Your task to perform on an android device: Open CNN.com Image 0: 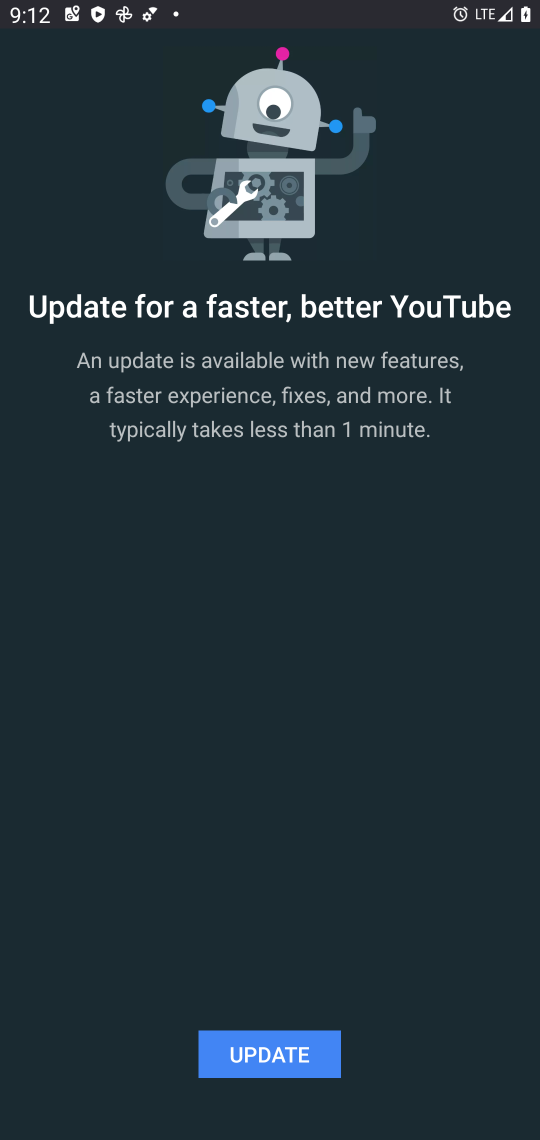
Step 0: press home button
Your task to perform on an android device: Open CNN.com Image 1: 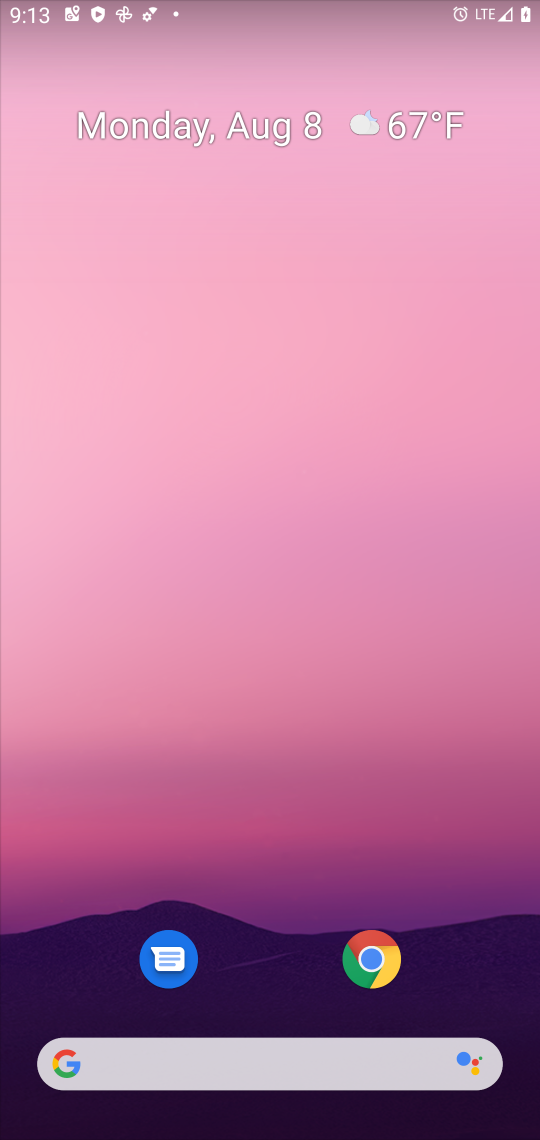
Step 1: drag from (469, 977) to (236, 1)
Your task to perform on an android device: Open CNN.com Image 2: 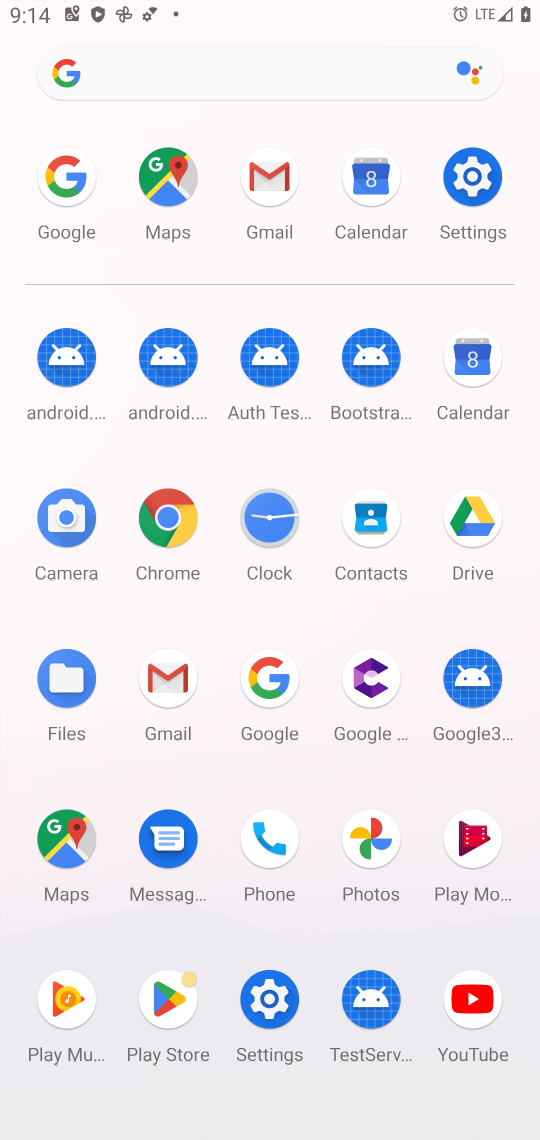
Step 2: click (257, 696)
Your task to perform on an android device: Open CNN.com Image 3: 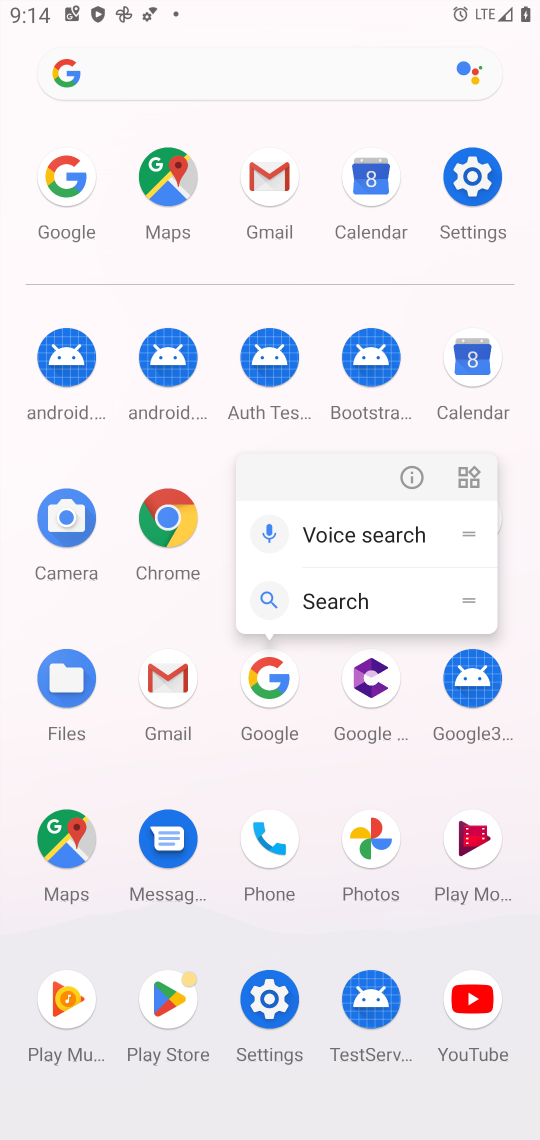
Step 3: click (257, 696)
Your task to perform on an android device: Open CNN.com Image 4: 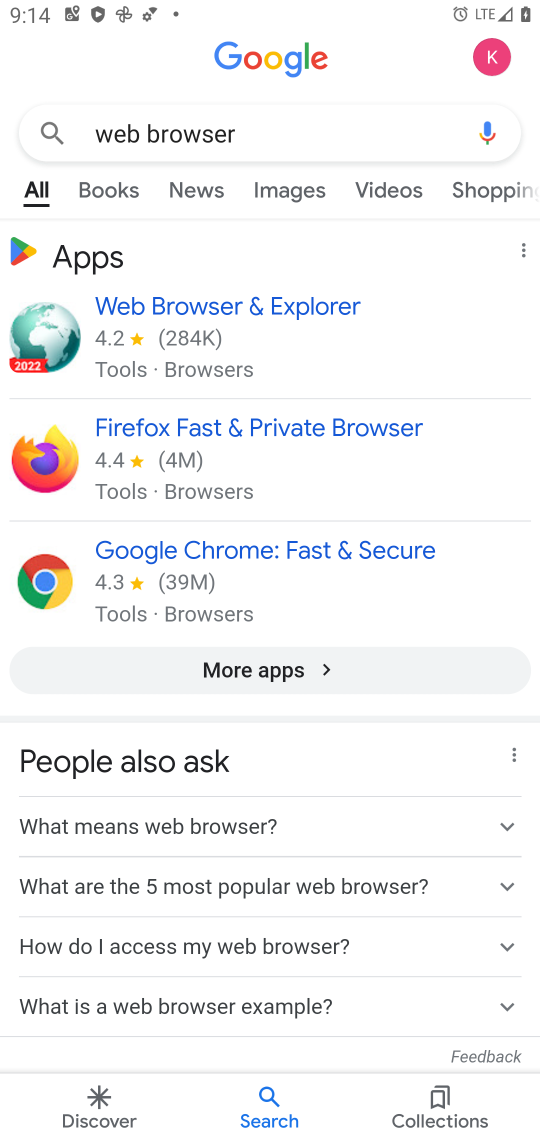
Step 4: press back button
Your task to perform on an android device: Open CNN.com Image 5: 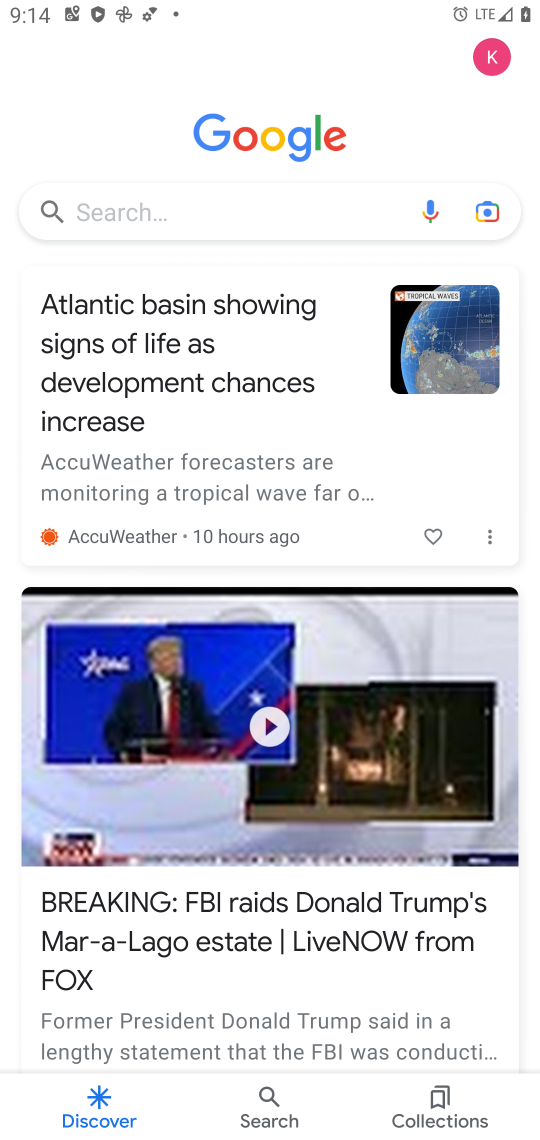
Step 5: click (136, 222)
Your task to perform on an android device: Open CNN.com Image 6: 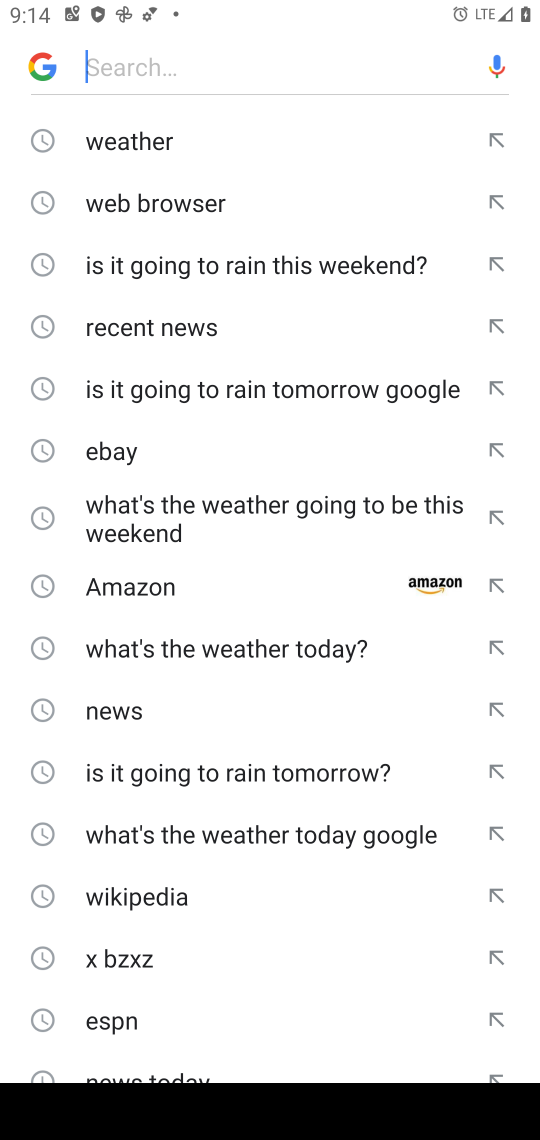
Step 6: type "CNN.com"
Your task to perform on an android device: Open CNN.com Image 7: 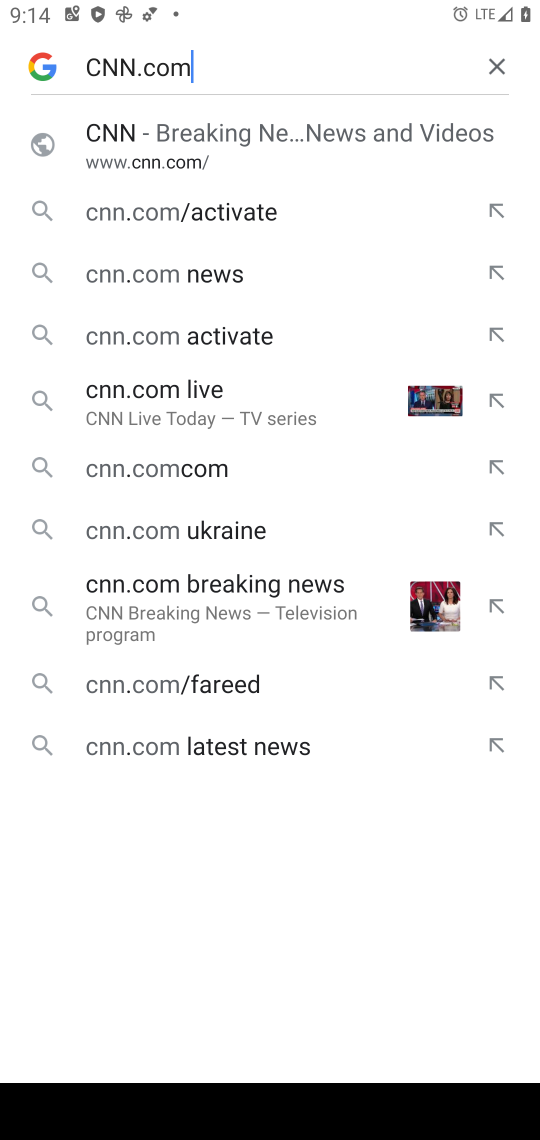
Step 7: click (102, 141)
Your task to perform on an android device: Open CNN.com Image 8: 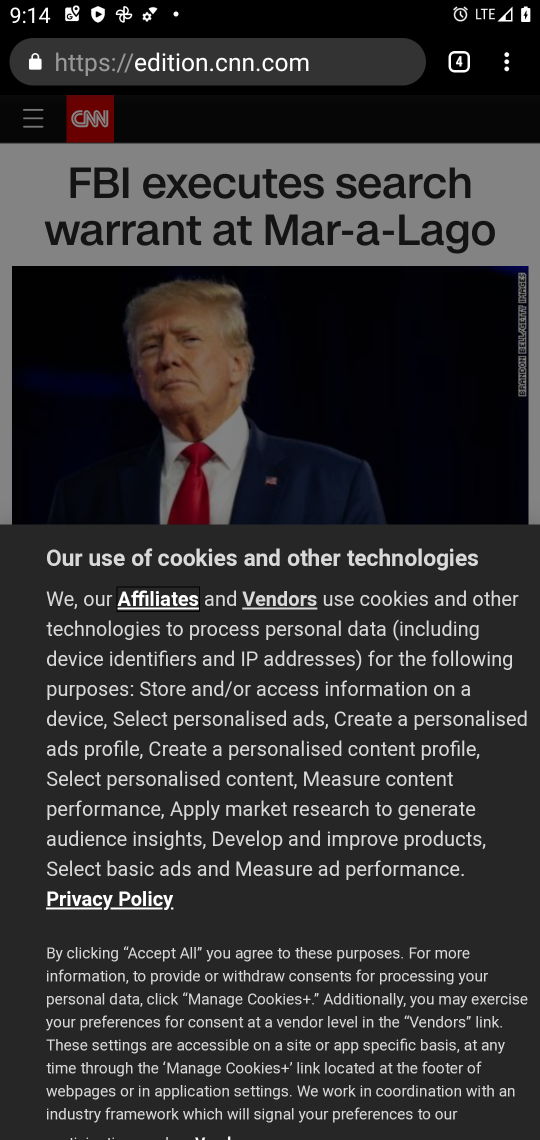
Step 8: task complete